Your task to perform on an android device: What's on my calendar today? Image 0: 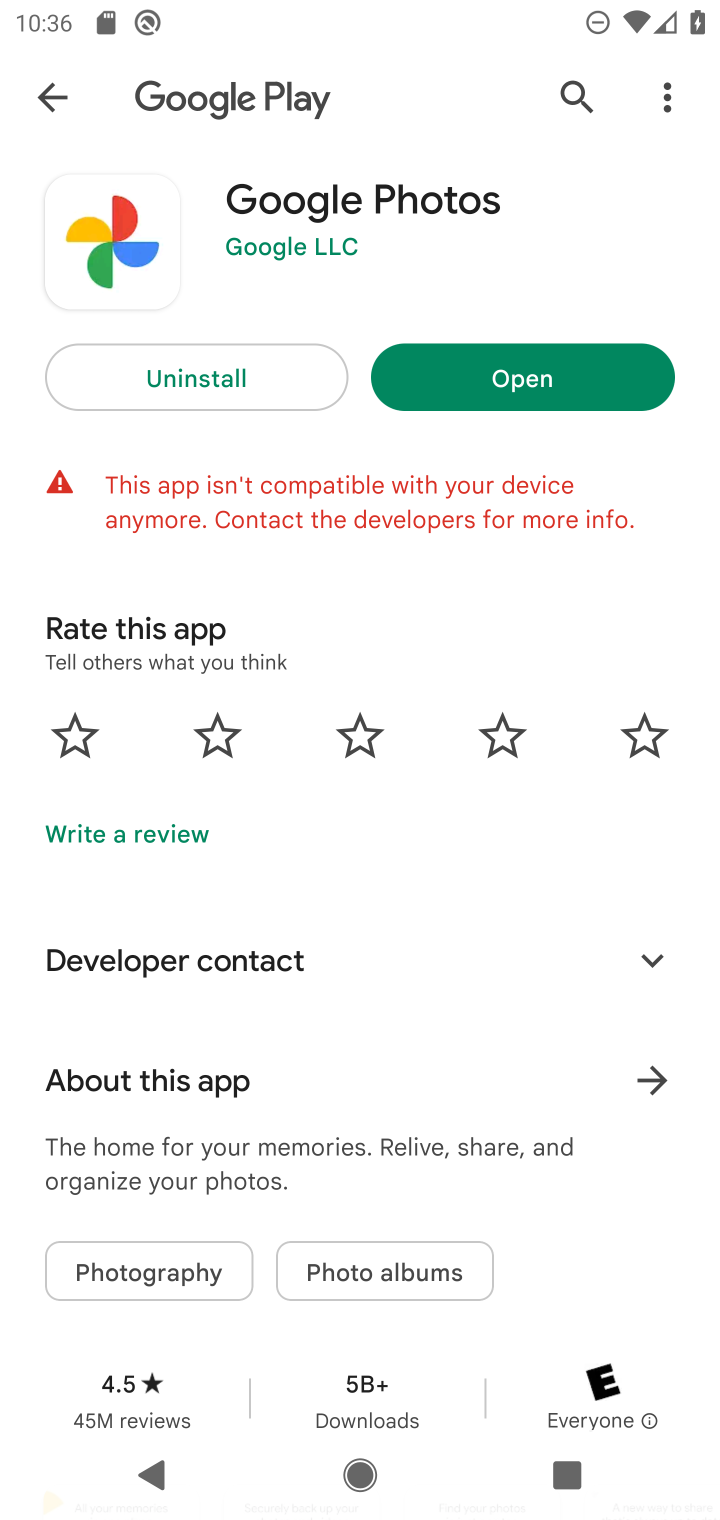
Step 0: press home button
Your task to perform on an android device: What's on my calendar today? Image 1: 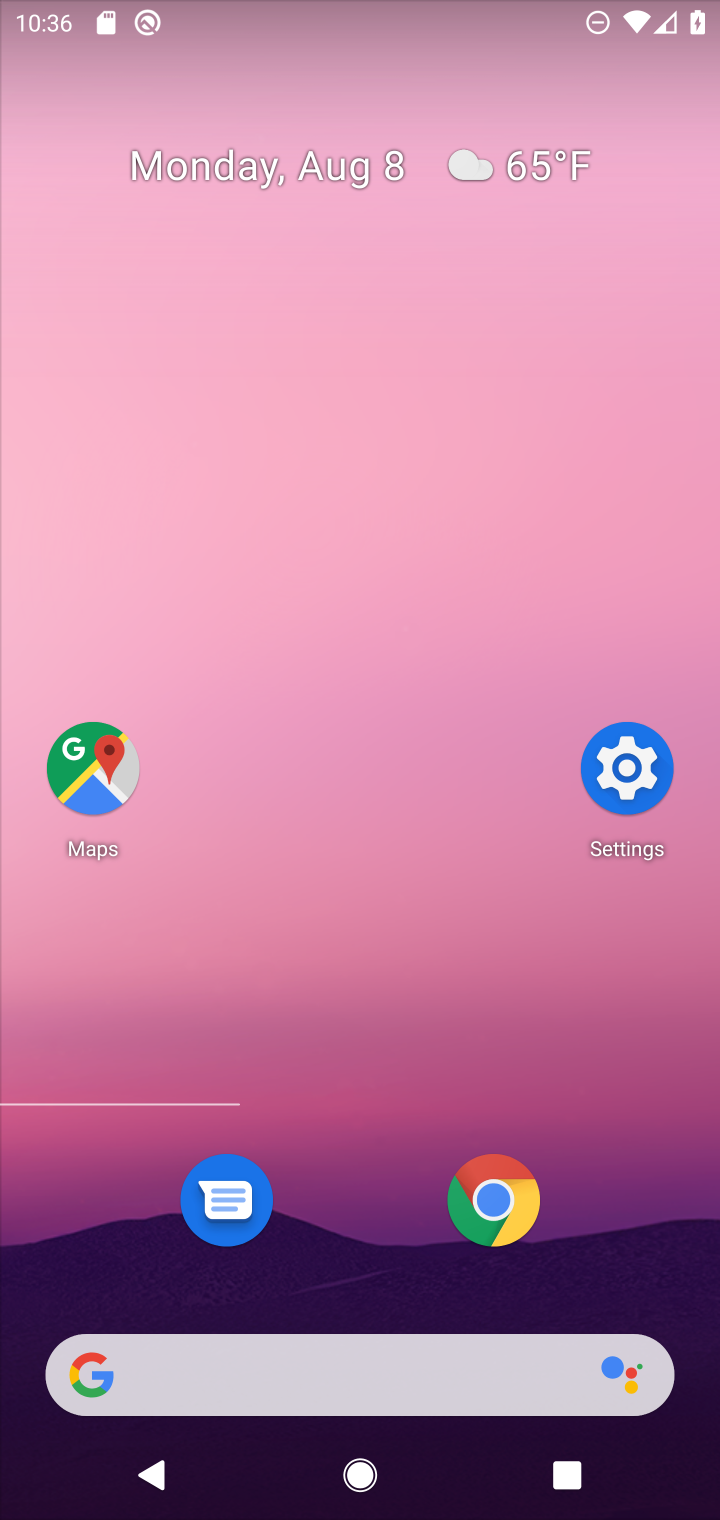
Step 1: drag from (389, 1228) to (696, 185)
Your task to perform on an android device: What's on my calendar today? Image 2: 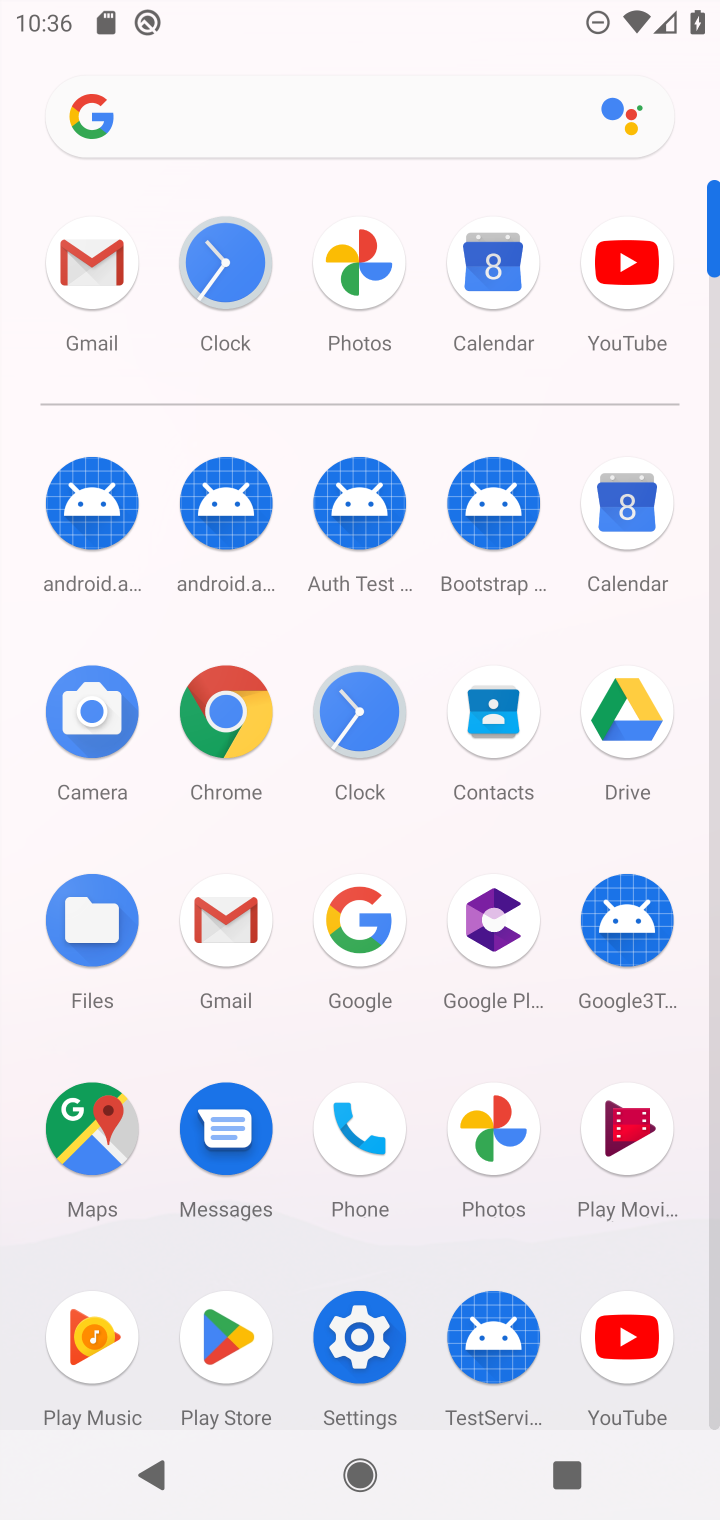
Step 2: click (627, 504)
Your task to perform on an android device: What's on my calendar today? Image 3: 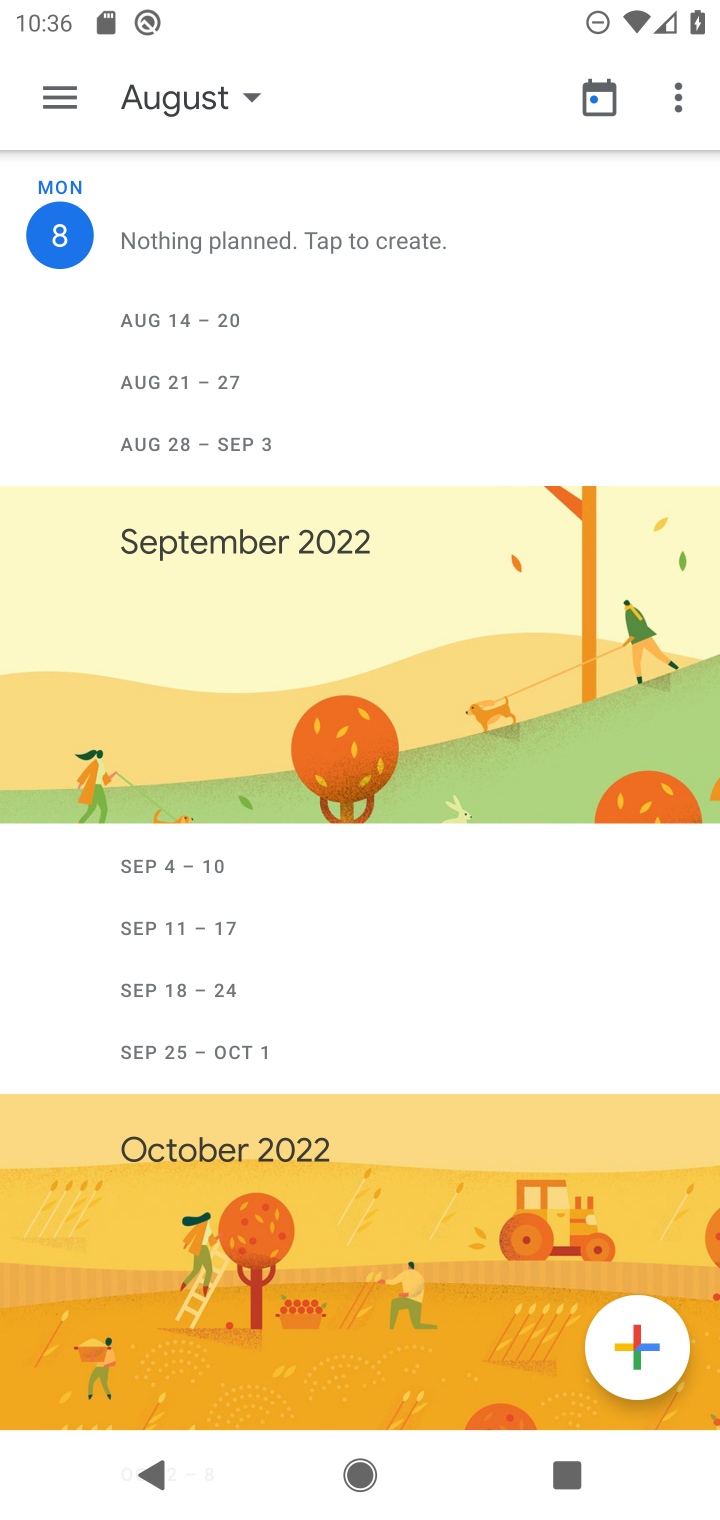
Step 3: task complete